Your task to perform on an android device: Open battery settings Image 0: 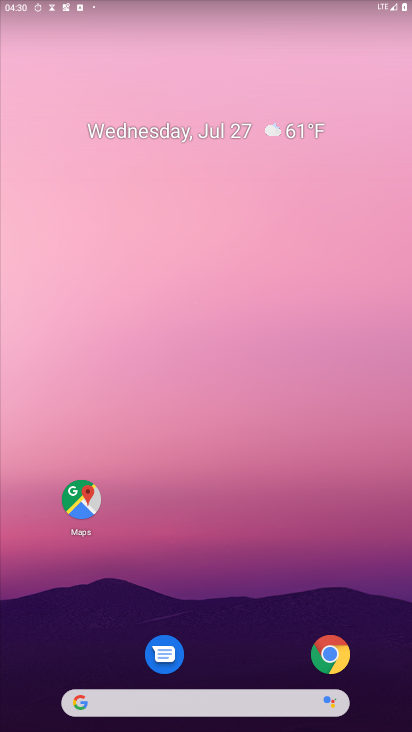
Step 0: drag from (211, 715) to (180, 0)
Your task to perform on an android device: Open battery settings Image 1: 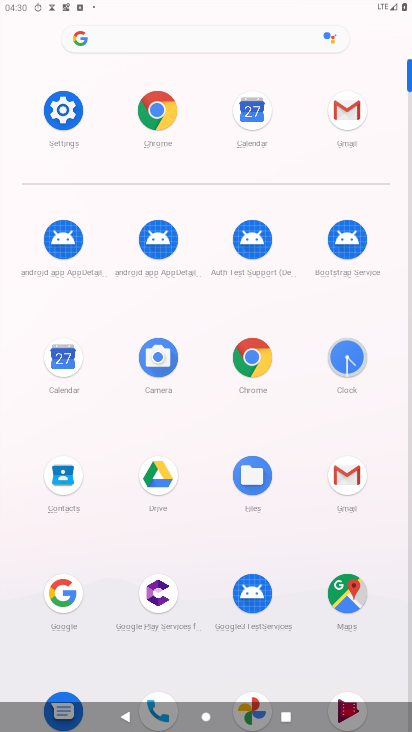
Step 1: click (59, 101)
Your task to perform on an android device: Open battery settings Image 2: 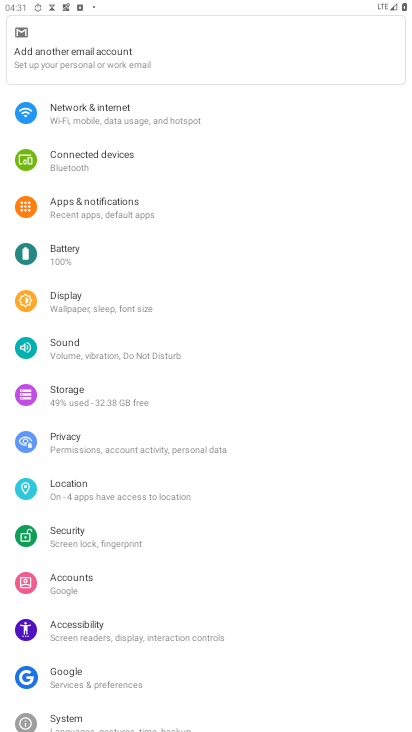
Step 2: click (67, 249)
Your task to perform on an android device: Open battery settings Image 3: 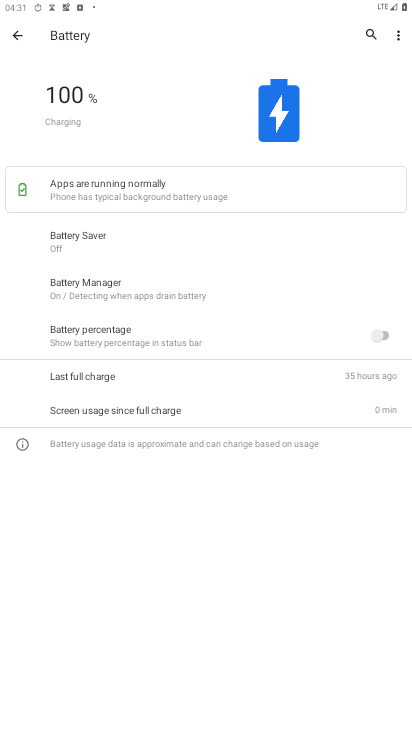
Step 3: task complete